Your task to perform on an android device: turn off notifications settings in the gmail app Image 0: 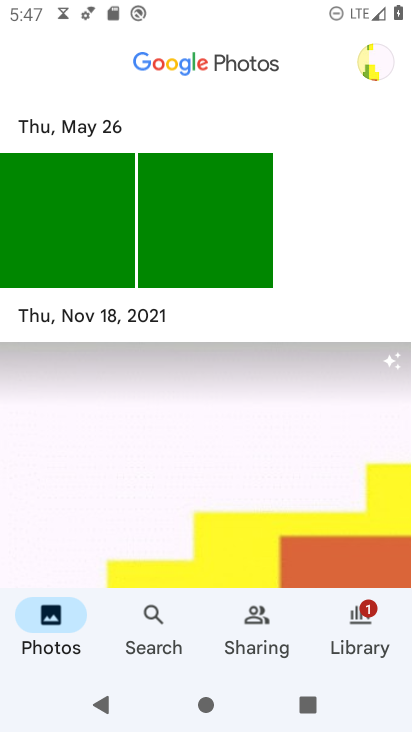
Step 0: press back button
Your task to perform on an android device: turn off notifications settings in the gmail app Image 1: 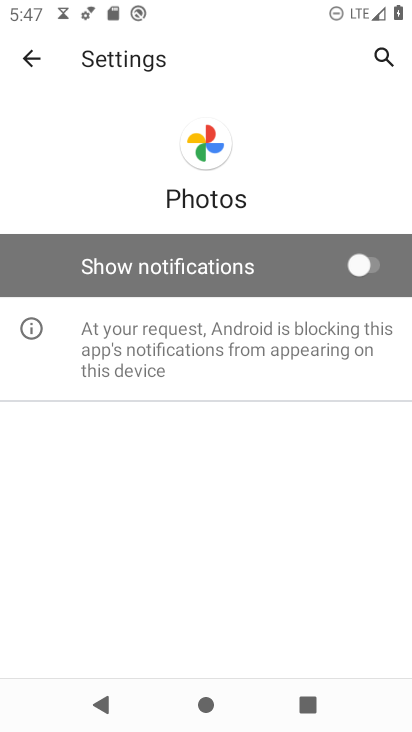
Step 1: press back button
Your task to perform on an android device: turn off notifications settings in the gmail app Image 2: 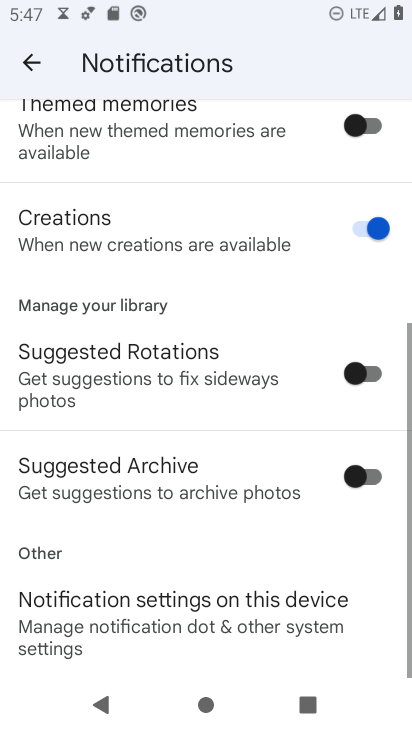
Step 2: press home button
Your task to perform on an android device: turn off notifications settings in the gmail app Image 3: 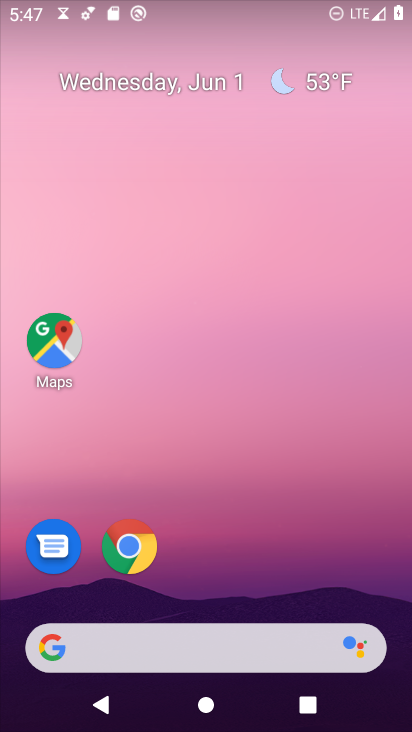
Step 3: drag from (228, 560) to (169, 19)
Your task to perform on an android device: turn off notifications settings in the gmail app Image 4: 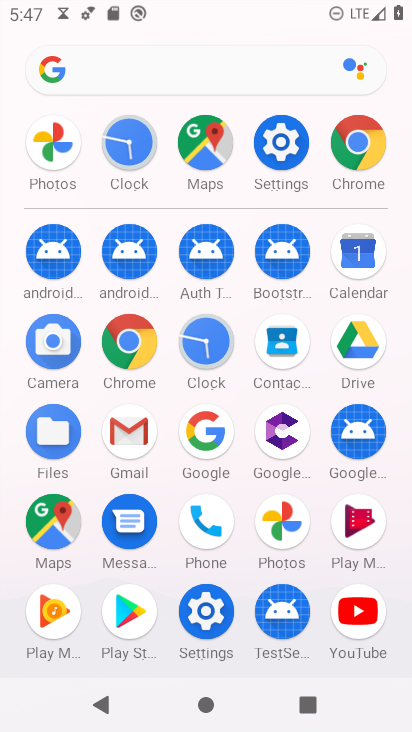
Step 4: drag from (14, 300) to (23, 118)
Your task to perform on an android device: turn off notifications settings in the gmail app Image 5: 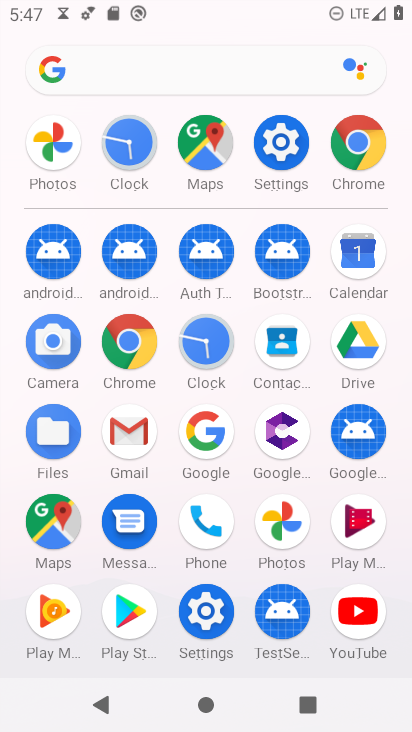
Step 5: click (125, 425)
Your task to perform on an android device: turn off notifications settings in the gmail app Image 6: 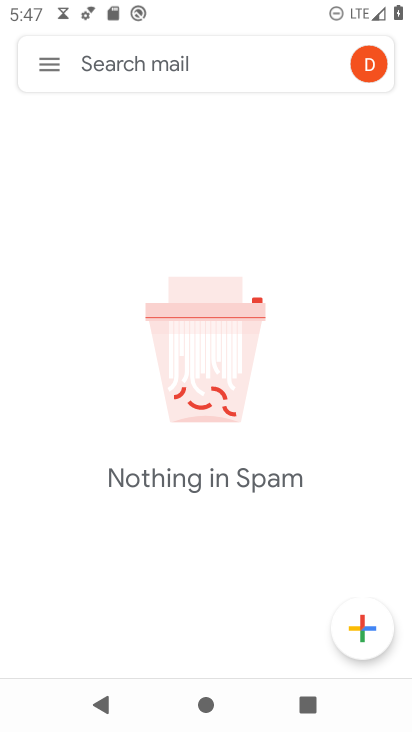
Step 6: click (59, 54)
Your task to perform on an android device: turn off notifications settings in the gmail app Image 7: 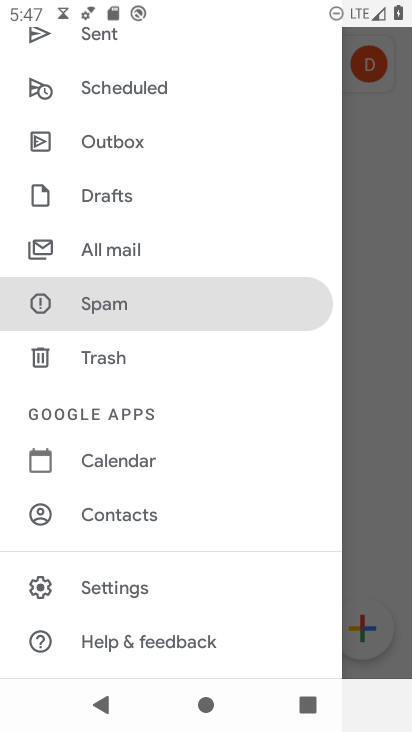
Step 7: click (128, 579)
Your task to perform on an android device: turn off notifications settings in the gmail app Image 8: 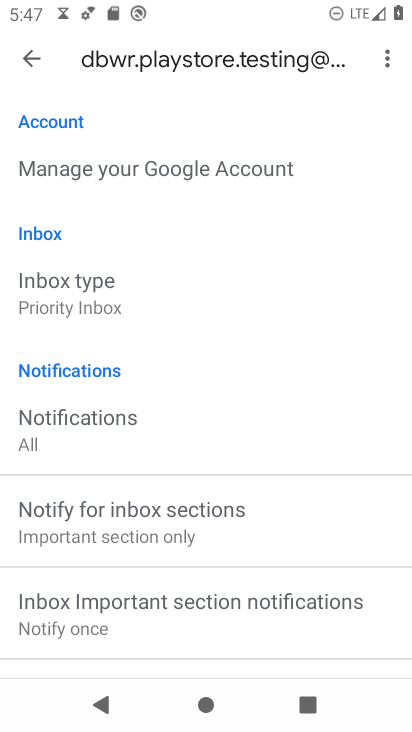
Step 8: drag from (253, 517) to (288, 136)
Your task to perform on an android device: turn off notifications settings in the gmail app Image 9: 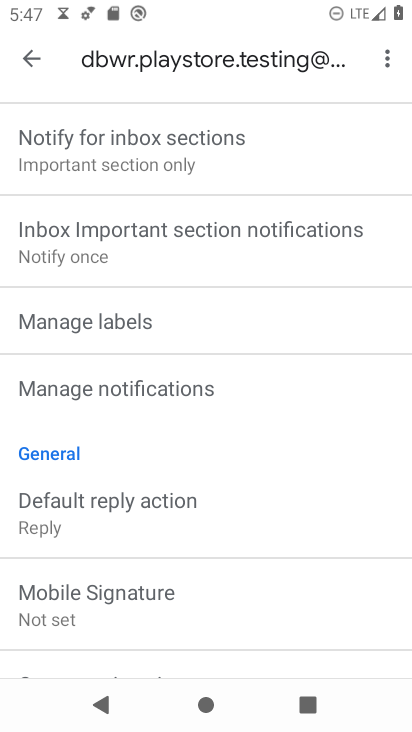
Step 9: click (161, 406)
Your task to perform on an android device: turn off notifications settings in the gmail app Image 10: 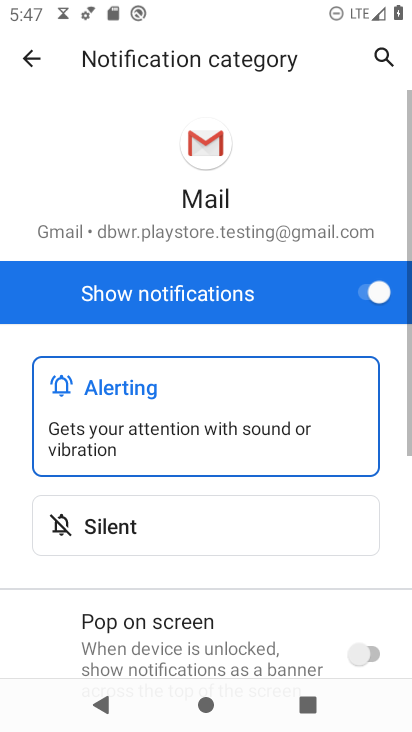
Step 10: click (358, 276)
Your task to perform on an android device: turn off notifications settings in the gmail app Image 11: 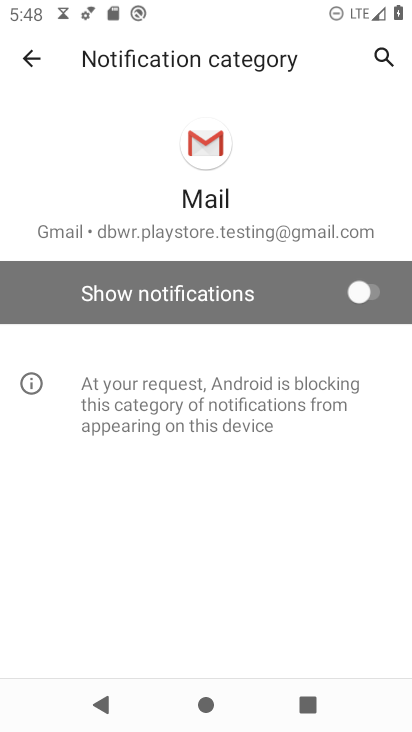
Step 11: task complete